Your task to perform on an android device: Open display settings Image 0: 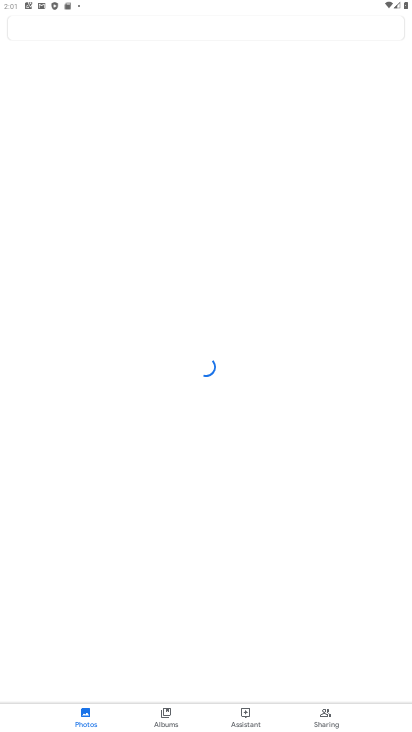
Step 0: press home button
Your task to perform on an android device: Open display settings Image 1: 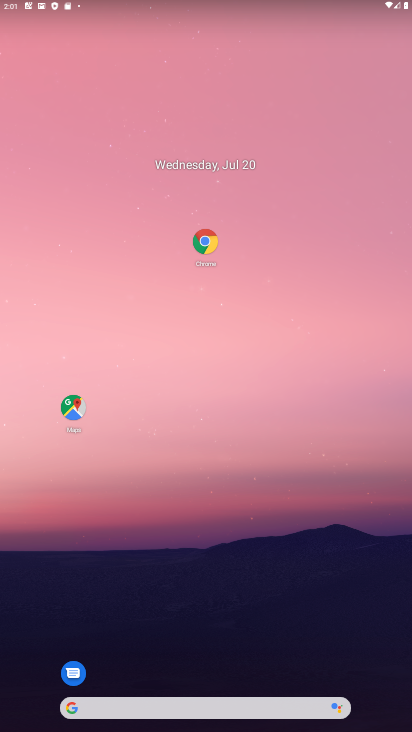
Step 1: drag from (206, 666) to (166, 92)
Your task to perform on an android device: Open display settings Image 2: 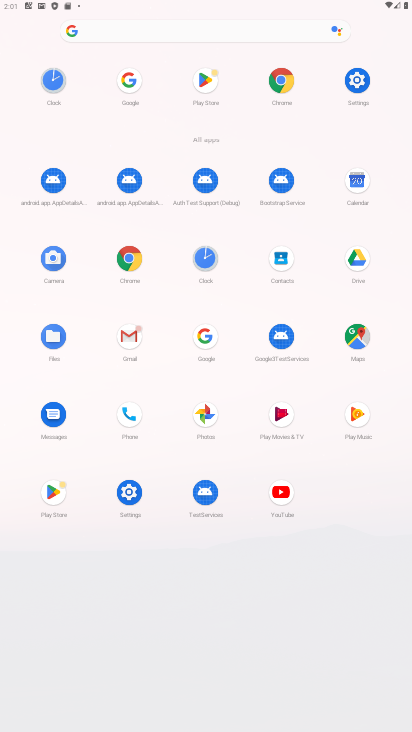
Step 2: click (354, 82)
Your task to perform on an android device: Open display settings Image 3: 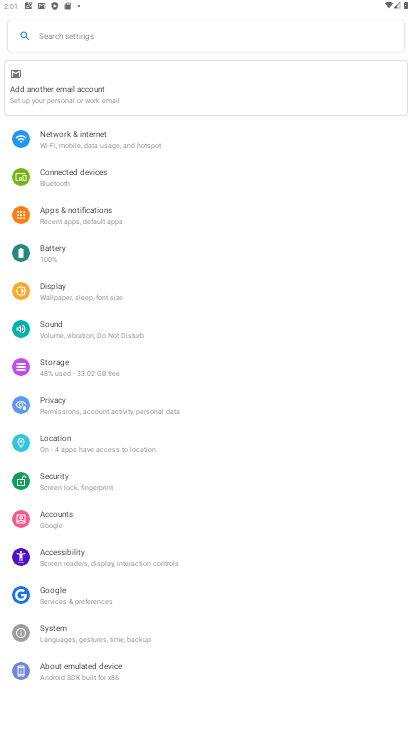
Step 3: click (72, 290)
Your task to perform on an android device: Open display settings Image 4: 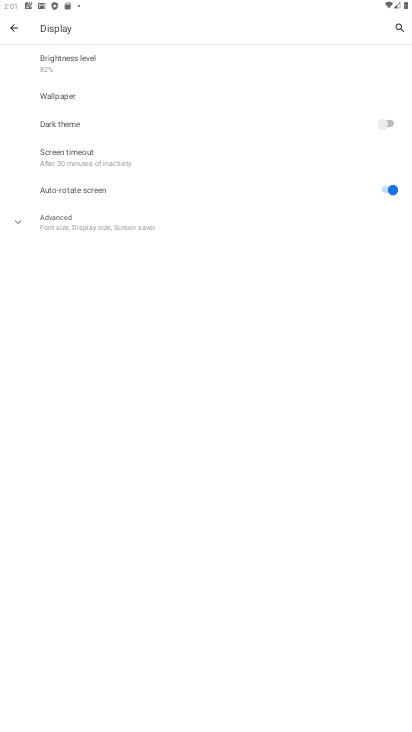
Step 4: task complete